Your task to perform on an android device: Open Chrome and go to the settings page Image 0: 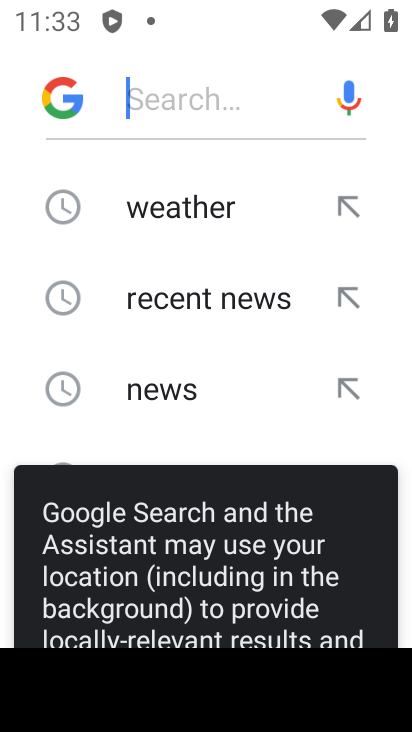
Step 0: press home button
Your task to perform on an android device: Open Chrome and go to the settings page Image 1: 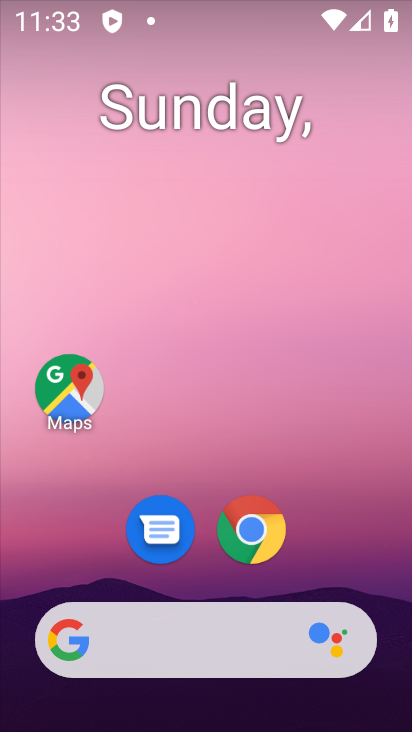
Step 1: drag from (377, 563) to (376, 223)
Your task to perform on an android device: Open Chrome and go to the settings page Image 2: 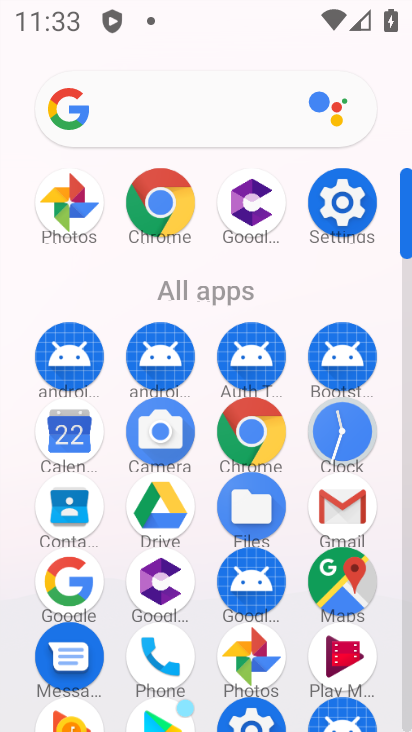
Step 2: click (244, 431)
Your task to perform on an android device: Open Chrome and go to the settings page Image 3: 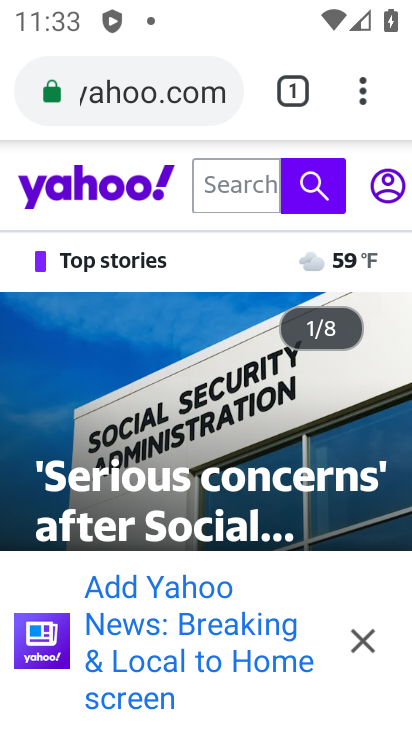
Step 3: click (361, 106)
Your task to perform on an android device: Open Chrome and go to the settings page Image 4: 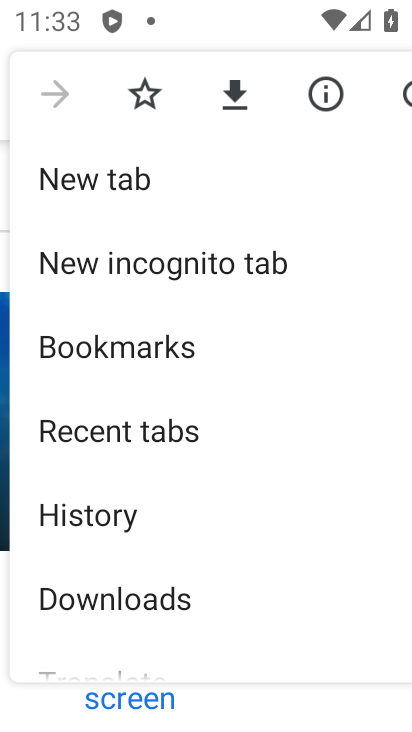
Step 4: drag from (325, 549) to (328, 429)
Your task to perform on an android device: Open Chrome and go to the settings page Image 5: 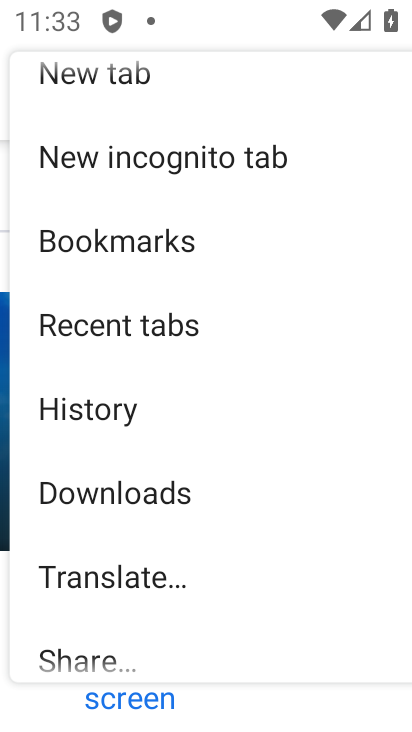
Step 5: drag from (329, 586) to (320, 469)
Your task to perform on an android device: Open Chrome and go to the settings page Image 6: 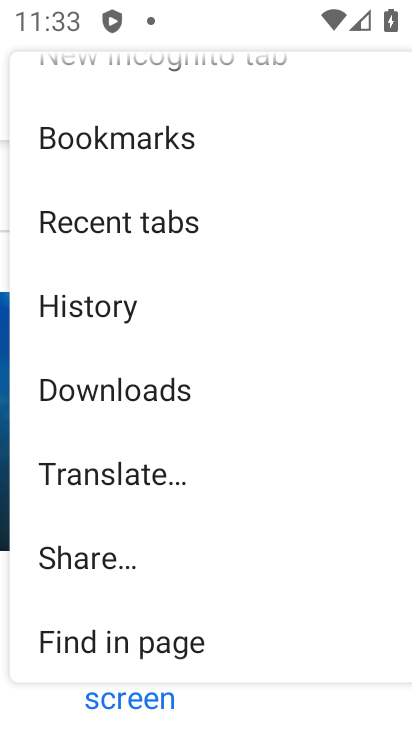
Step 6: drag from (317, 605) to (315, 454)
Your task to perform on an android device: Open Chrome and go to the settings page Image 7: 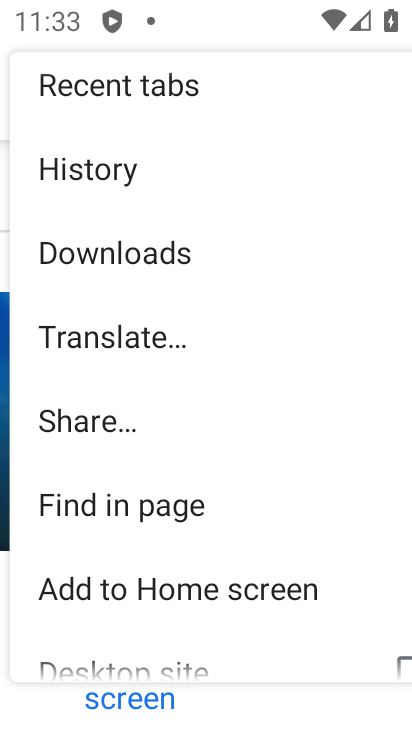
Step 7: drag from (320, 579) to (327, 490)
Your task to perform on an android device: Open Chrome and go to the settings page Image 8: 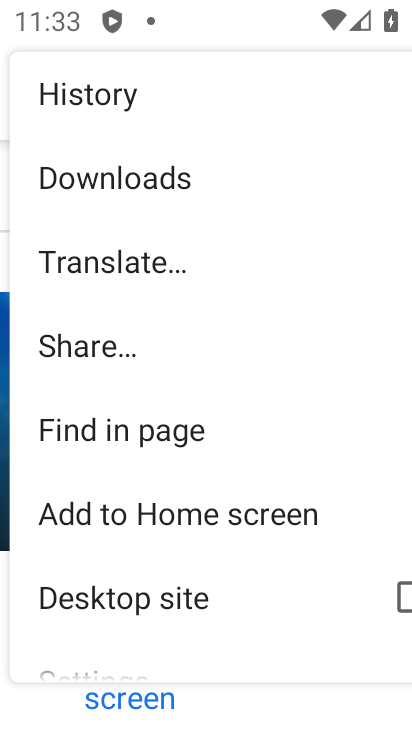
Step 8: drag from (337, 601) to (336, 417)
Your task to perform on an android device: Open Chrome and go to the settings page Image 9: 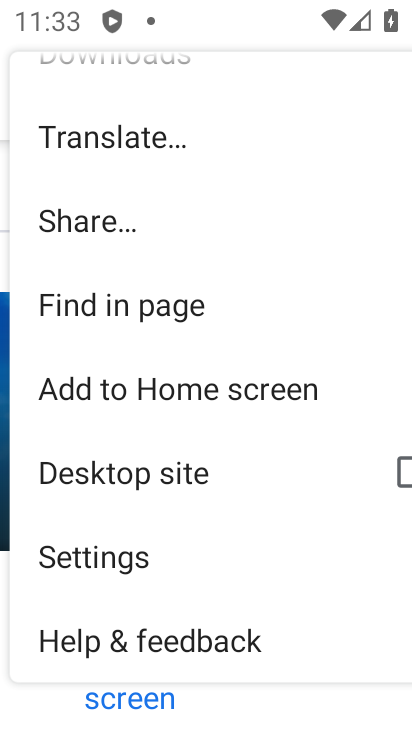
Step 9: drag from (356, 589) to (356, 430)
Your task to perform on an android device: Open Chrome and go to the settings page Image 10: 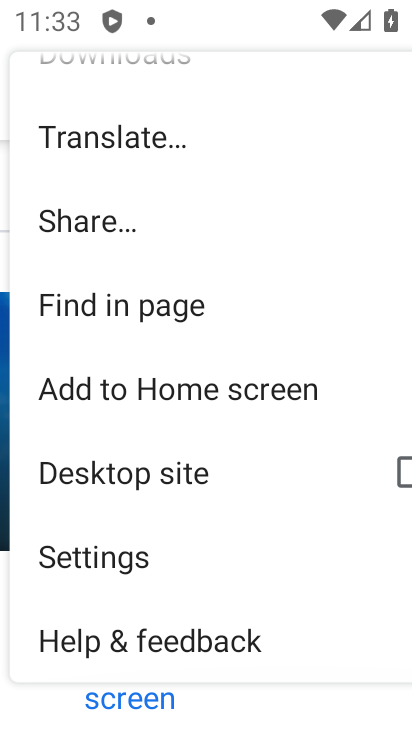
Step 10: drag from (360, 346) to (350, 437)
Your task to perform on an android device: Open Chrome and go to the settings page Image 11: 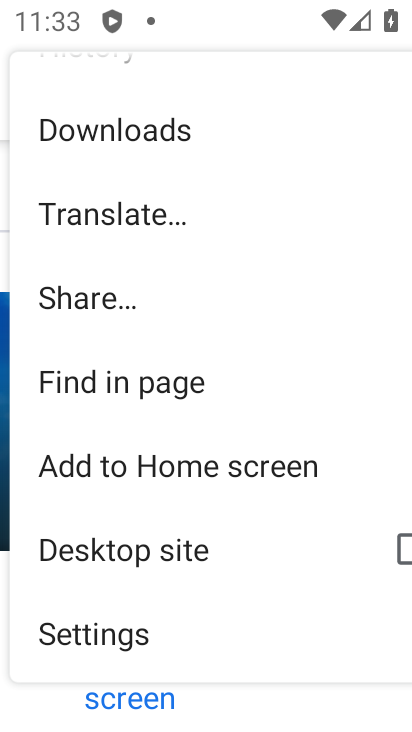
Step 11: drag from (355, 331) to (335, 451)
Your task to perform on an android device: Open Chrome and go to the settings page Image 12: 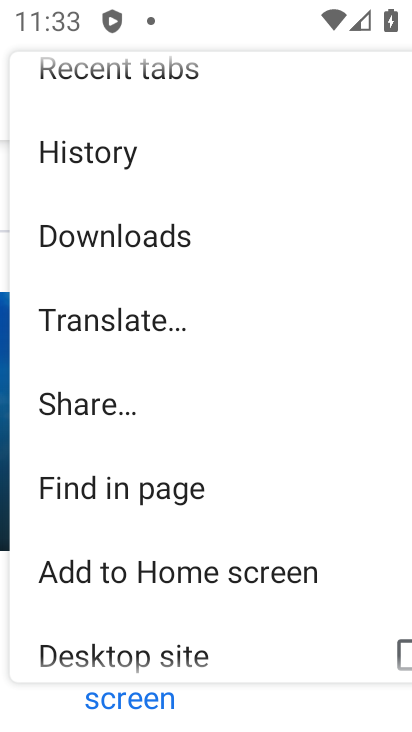
Step 12: drag from (313, 600) to (314, 412)
Your task to perform on an android device: Open Chrome and go to the settings page Image 13: 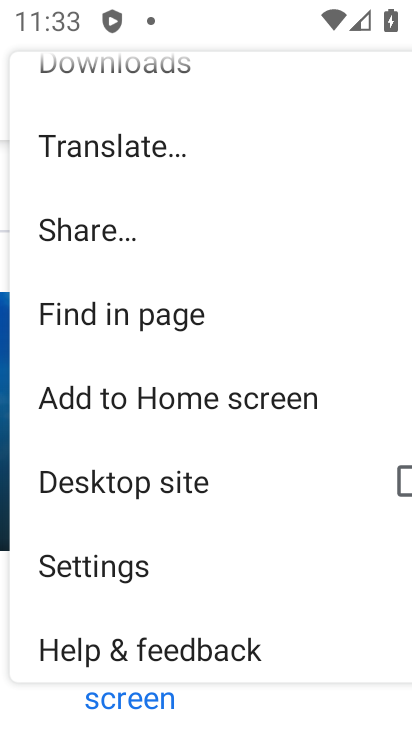
Step 13: drag from (276, 317) to (261, 553)
Your task to perform on an android device: Open Chrome and go to the settings page Image 14: 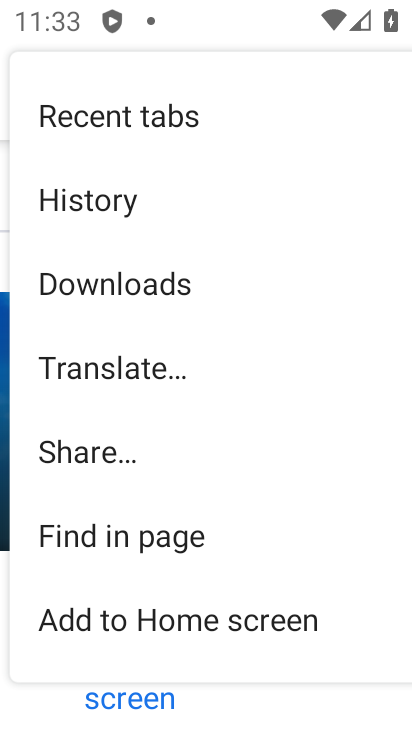
Step 14: drag from (286, 334) to (268, 487)
Your task to perform on an android device: Open Chrome and go to the settings page Image 15: 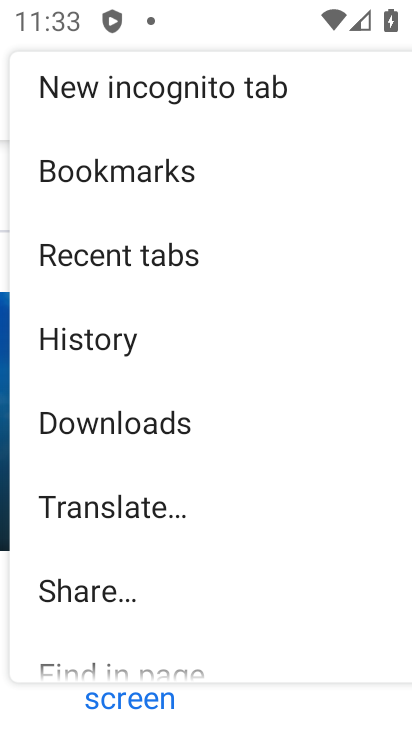
Step 15: drag from (296, 306) to (278, 356)
Your task to perform on an android device: Open Chrome and go to the settings page Image 16: 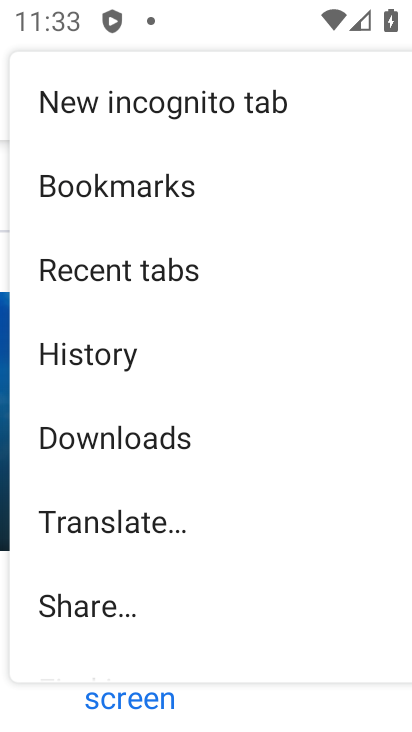
Step 16: drag from (288, 518) to (303, 411)
Your task to perform on an android device: Open Chrome and go to the settings page Image 17: 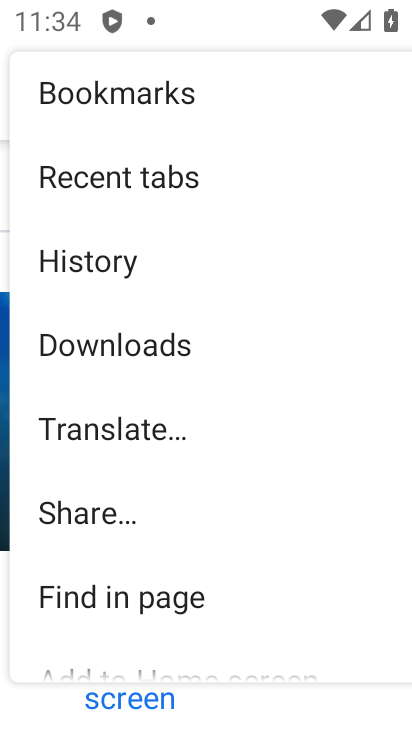
Step 17: drag from (308, 541) to (323, 445)
Your task to perform on an android device: Open Chrome and go to the settings page Image 18: 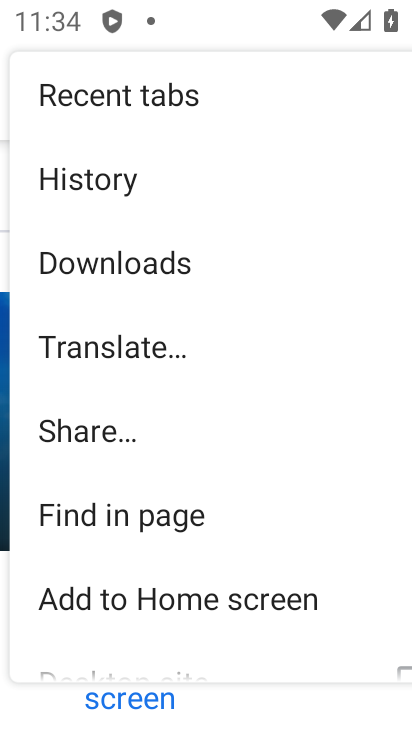
Step 18: drag from (347, 514) to (350, 397)
Your task to perform on an android device: Open Chrome and go to the settings page Image 19: 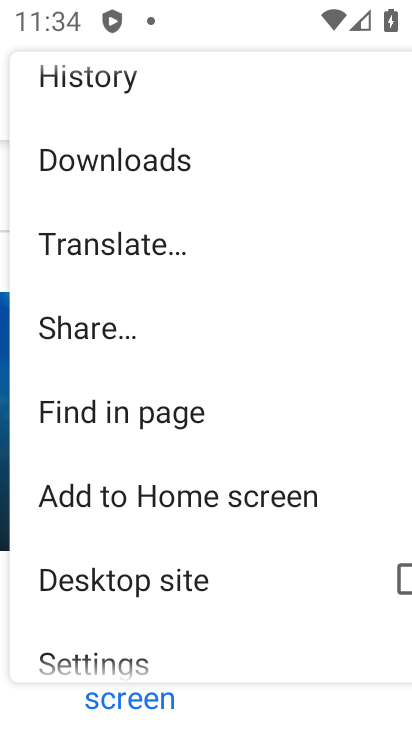
Step 19: drag from (310, 590) to (340, 455)
Your task to perform on an android device: Open Chrome and go to the settings page Image 20: 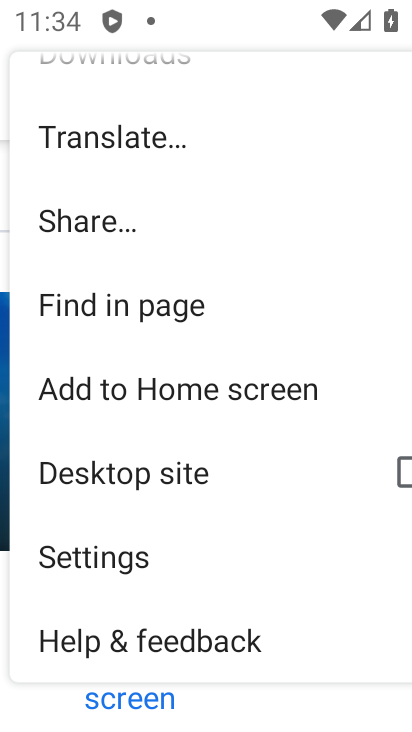
Step 20: drag from (341, 550) to (335, 407)
Your task to perform on an android device: Open Chrome and go to the settings page Image 21: 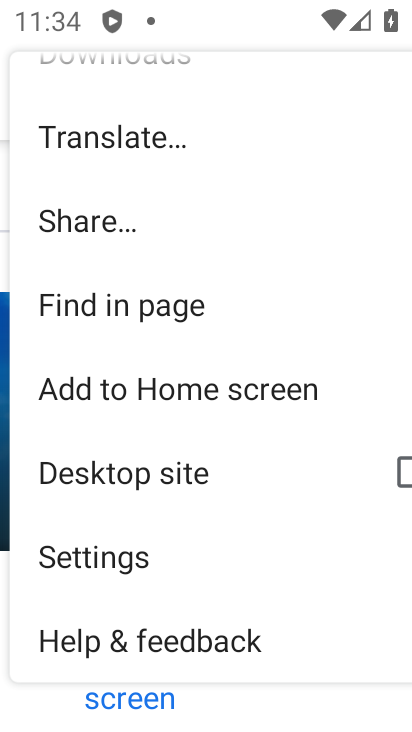
Step 21: click (268, 572)
Your task to perform on an android device: Open Chrome and go to the settings page Image 22: 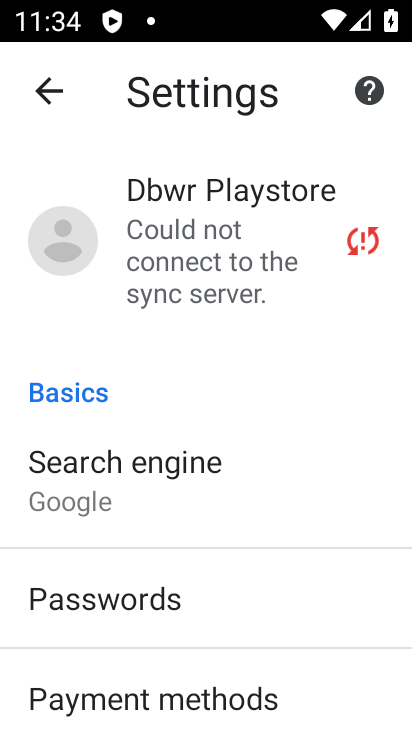
Step 22: task complete